Your task to perform on an android device: Open network settings Image 0: 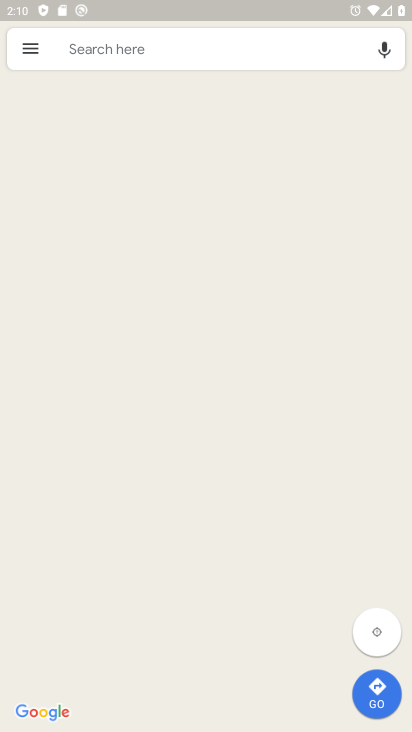
Step 0: press home button
Your task to perform on an android device: Open network settings Image 1: 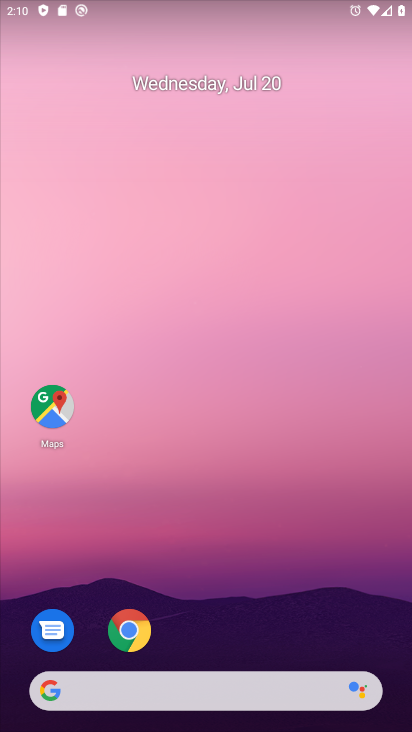
Step 1: drag from (7, 630) to (393, 204)
Your task to perform on an android device: Open network settings Image 2: 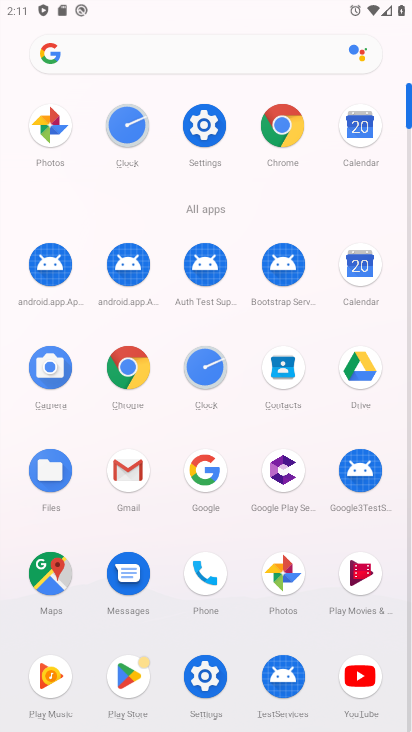
Step 2: click (207, 117)
Your task to perform on an android device: Open network settings Image 3: 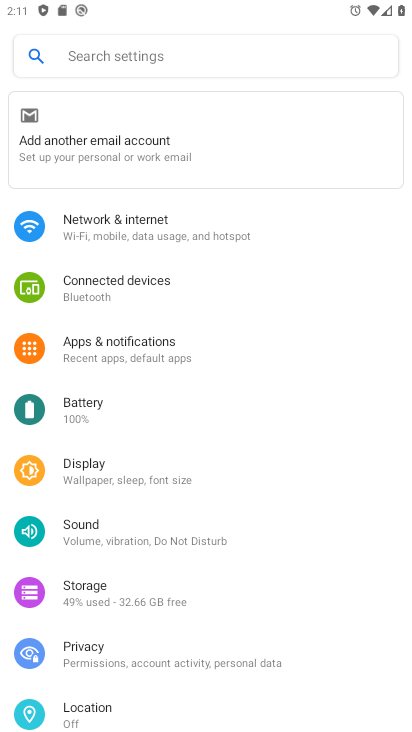
Step 3: click (120, 229)
Your task to perform on an android device: Open network settings Image 4: 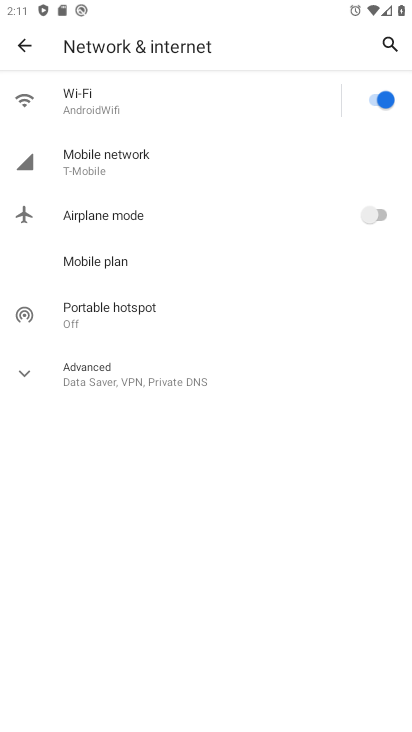
Step 4: click (129, 159)
Your task to perform on an android device: Open network settings Image 5: 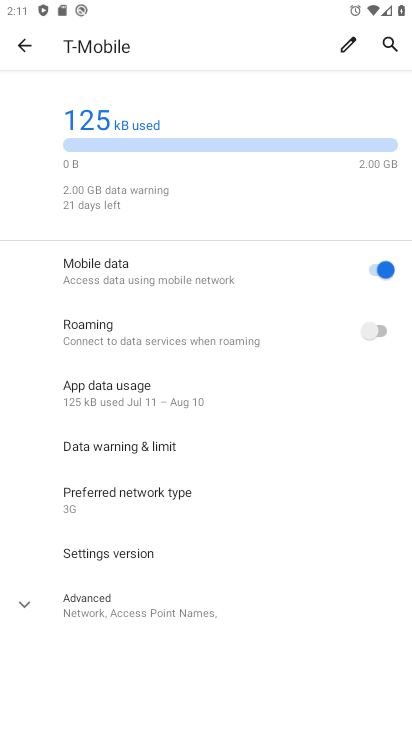
Step 5: task complete